Your task to perform on an android device: Is it going to rain today? Image 0: 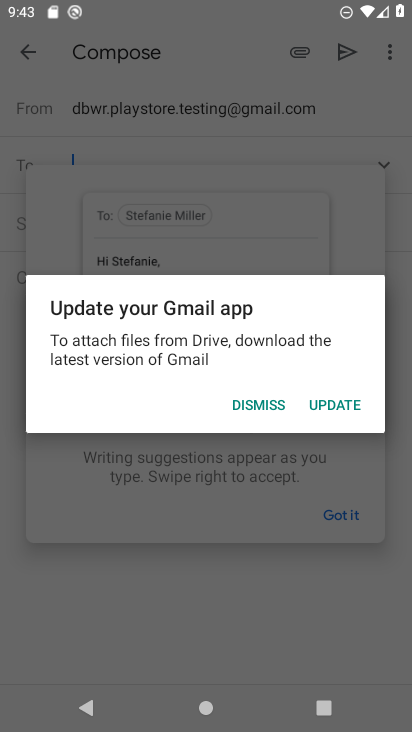
Step 0: press home button
Your task to perform on an android device: Is it going to rain today? Image 1: 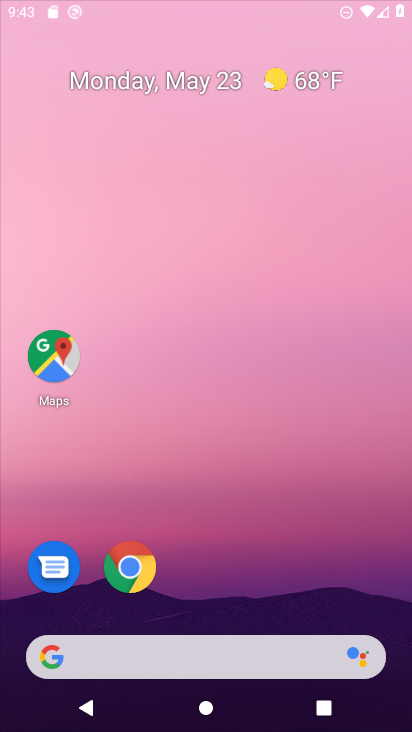
Step 1: drag from (199, 651) to (196, 65)
Your task to perform on an android device: Is it going to rain today? Image 2: 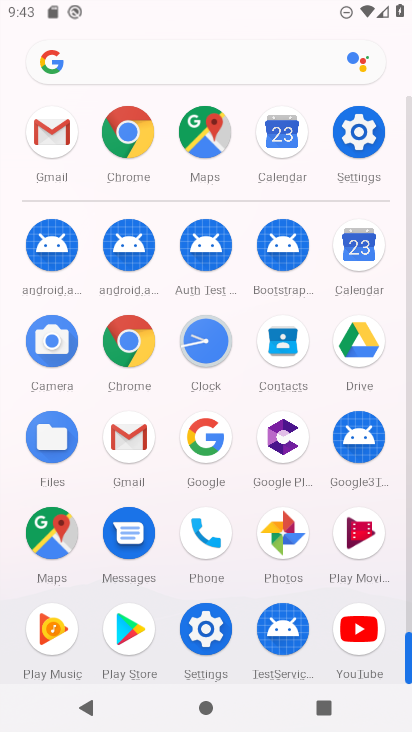
Step 2: click (131, 58)
Your task to perform on an android device: Is it going to rain today? Image 3: 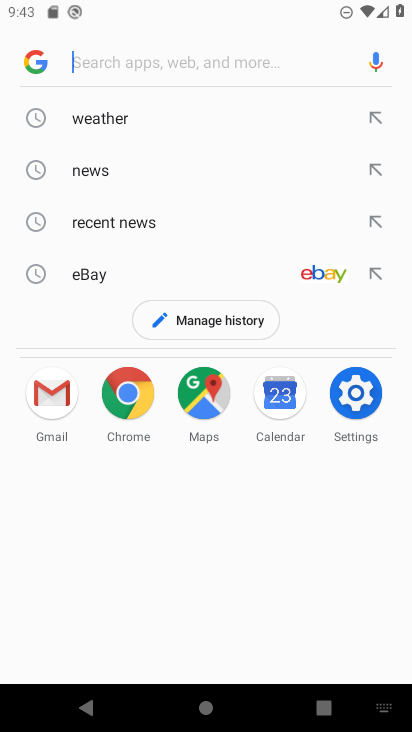
Step 3: type "Is it going to rain today?"
Your task to perform on an android device: Is it going to rain today? Image 4: 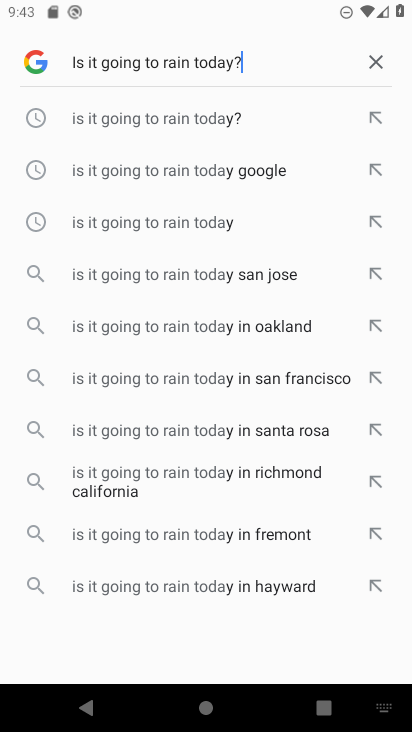
Step 4: type ""
Your task to perform on an android device: Is it going to rain today? Image 5: 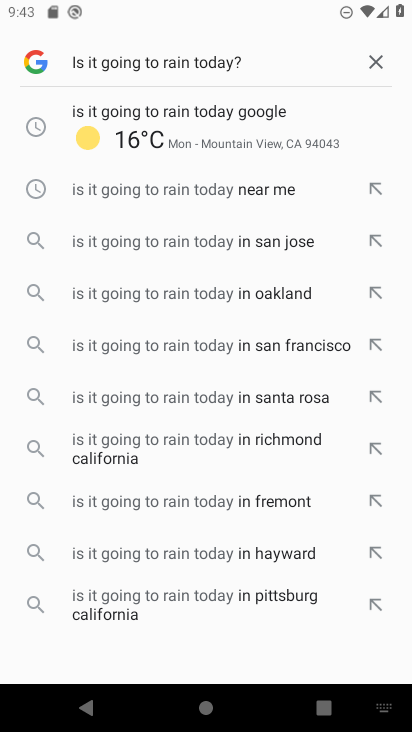
Step 5: click (147, 121)
Your task to perform on an android device: Is it going to rain today? Image 6: 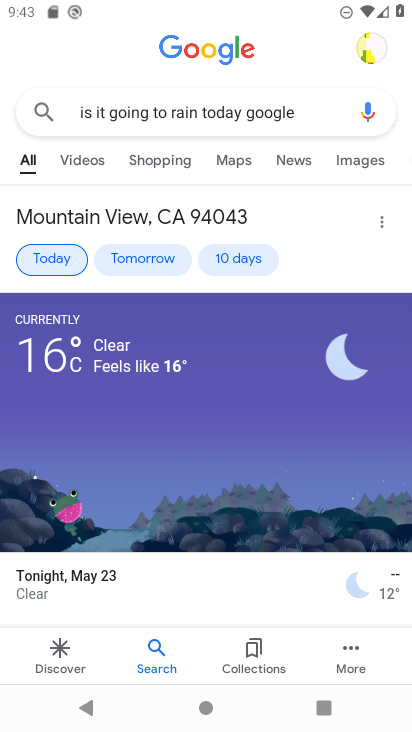
Step 6: task complete